Your task to perform on an android device: delete a single message in the gmail app Image 0: 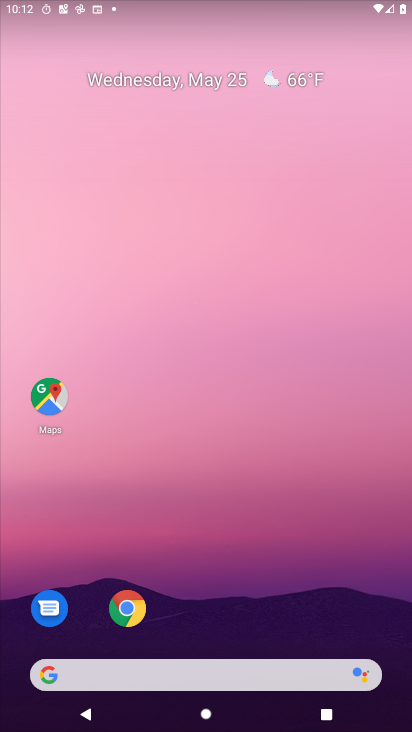
Step 0: drag from (224, 723) to (207, 23)
Your task to perform on an android device: delete a single message in the gmail app Image 1: 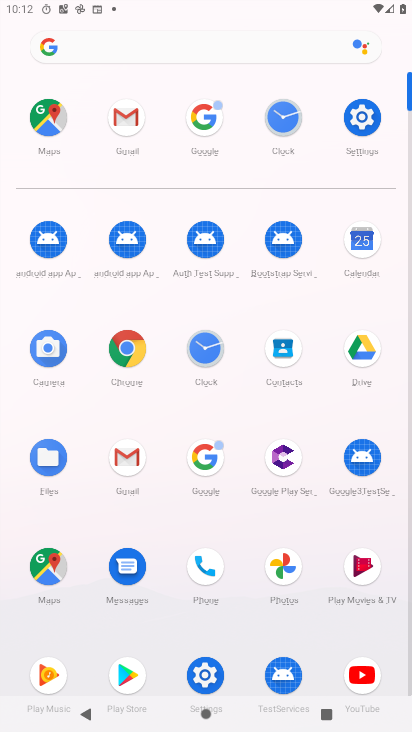
Step 1: click (126, 456)
Your task to perform on an android device: delete a single message in the gmail app Image 2: 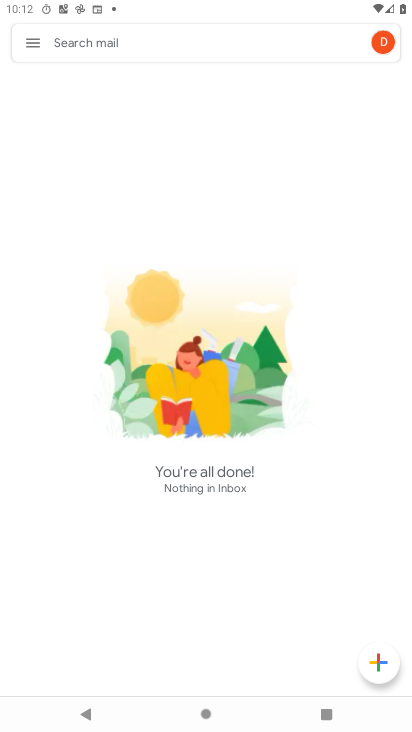
Step 2: task complete